Your task to perform on an android device: Open settings on Google Maps Image 0: 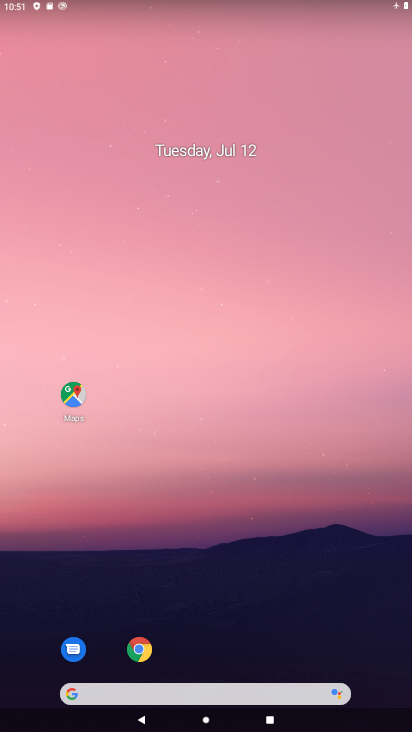
Step 0: click (73, 391)
Your task to perform on an android device: Open settings on Google Maps Image 1: 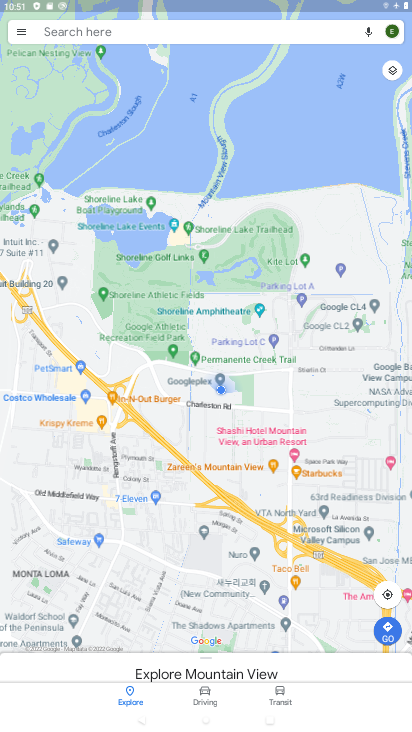
Step 1: click (18, 34)
Your task to perform on an android device: Open settings on Google Maps Image 2: 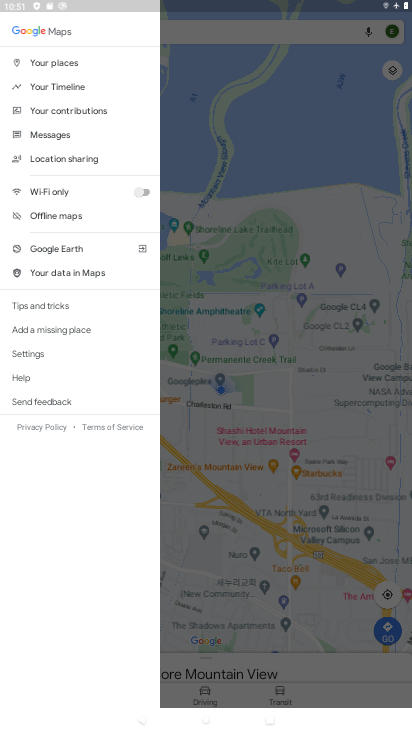
Step 2: click (32, 353)
Your task to perform on an android device: Open settings on Google Maps Image 3: 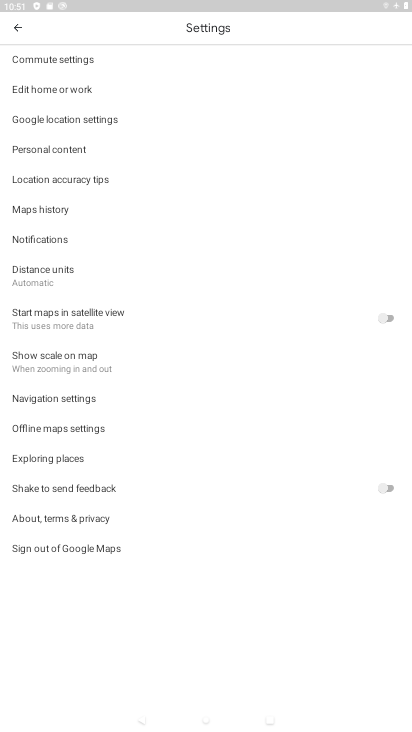
Step 3: task complete